Your task to perform on an android device: Open CNN.com Image 0: 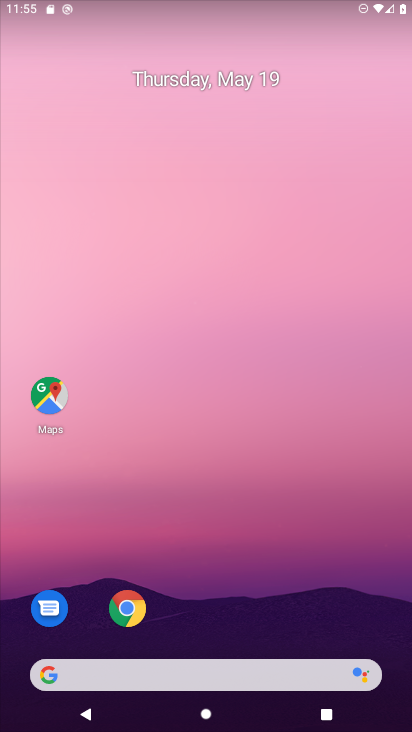
Step 0: press home button
Your task to perform on an android device: Open CNN.com Image 1: 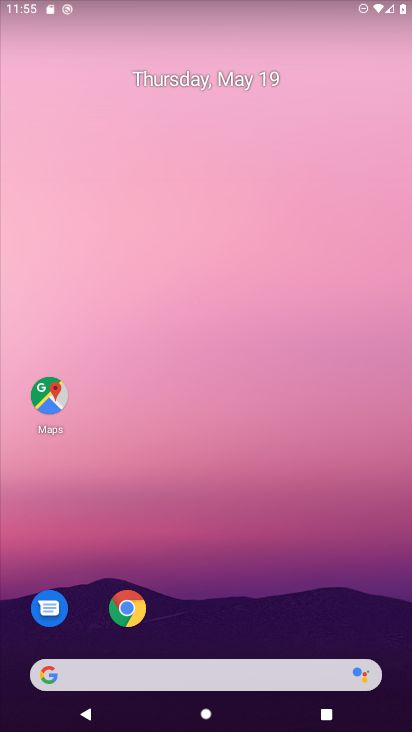
Step 1: click (129, 606)
Your task to perform on an android device: Open CNN.com Image 2: 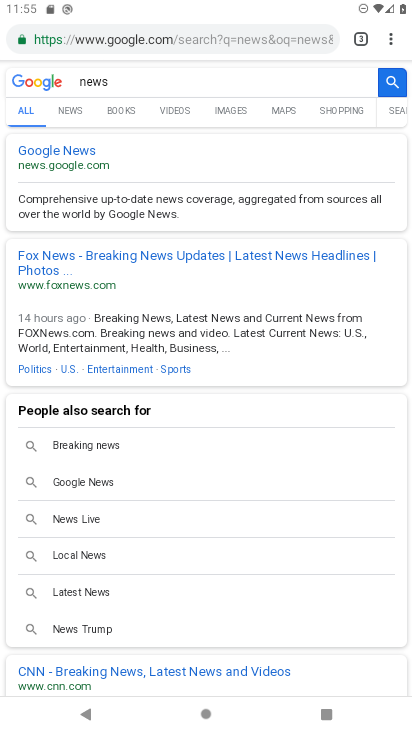
Step 2: click (177, 36)
Your task to perform on an android device: Open CNN.com Image 3: 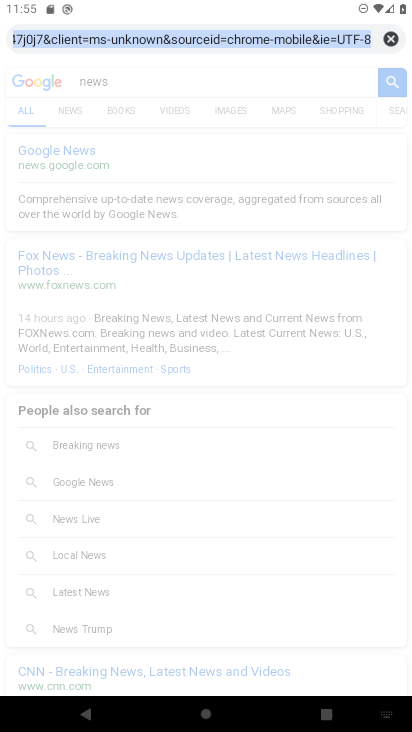
Step 3: click (386, 47)
Your task to perform on an android device: Open CNN.com Image 4: 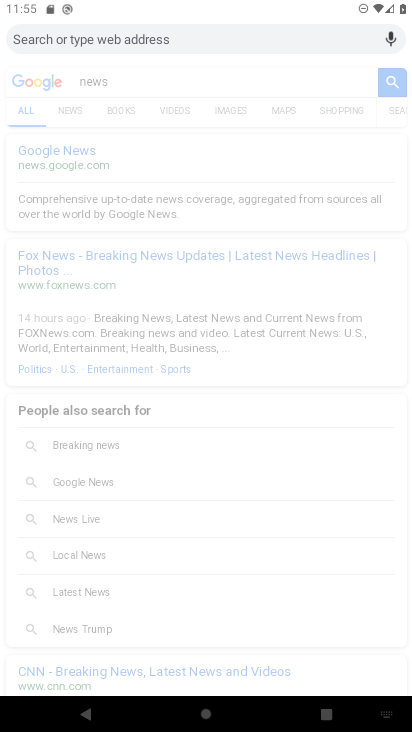
Step 4: type "CNN.com"
Your task to perform on an android device: Open CNN.com Image 5: 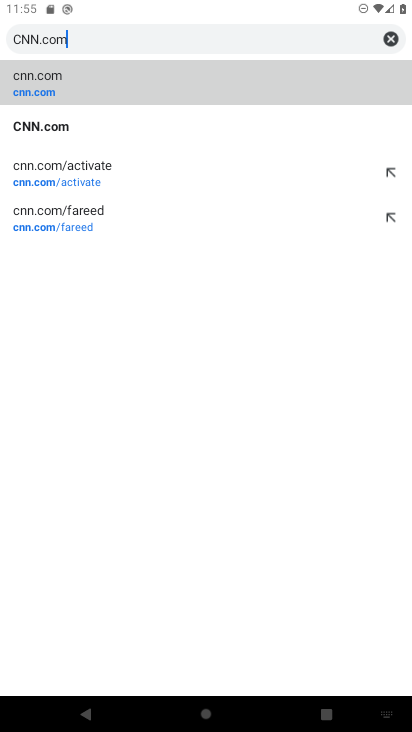
Step 5: click (88, 59)
Your task to perform on an android device: Open CNN.com Image 6: 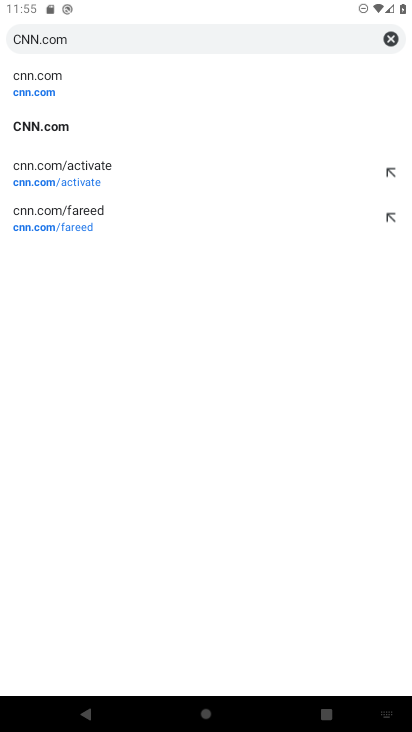
Step 6: click (111, 80)
Your task to perform on an android device: Open CNN.com Image 7: 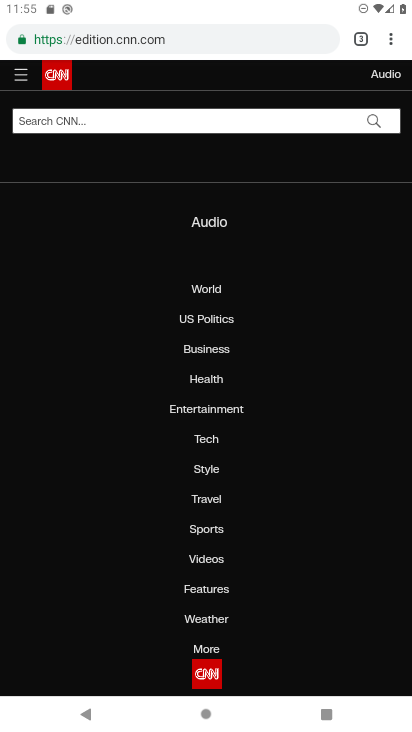
Step 7: task complete